Your task to perform on an android device: Turn on the flashlight Image 0: 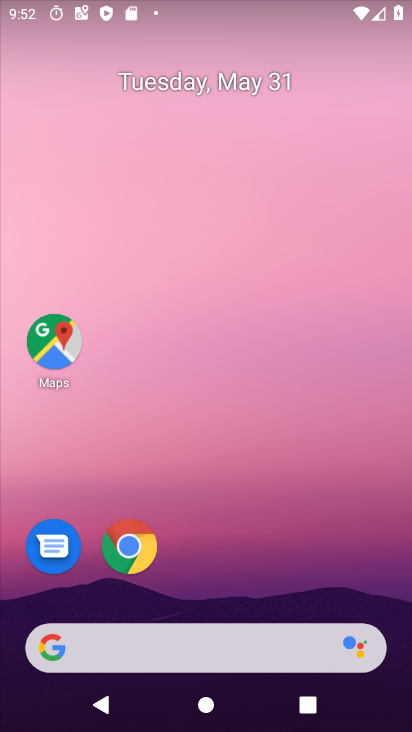
Step 0: drag from (322, 614) to (169, 68)
Your task to perform on an android device: Turn on the flashlight Image 1: 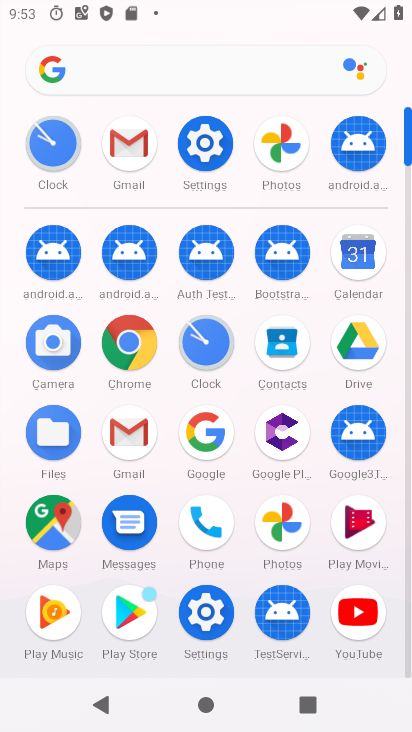
Step 1: click (204, 143)
Your task to perform on an android device: Turn on the flashlight Image 2: 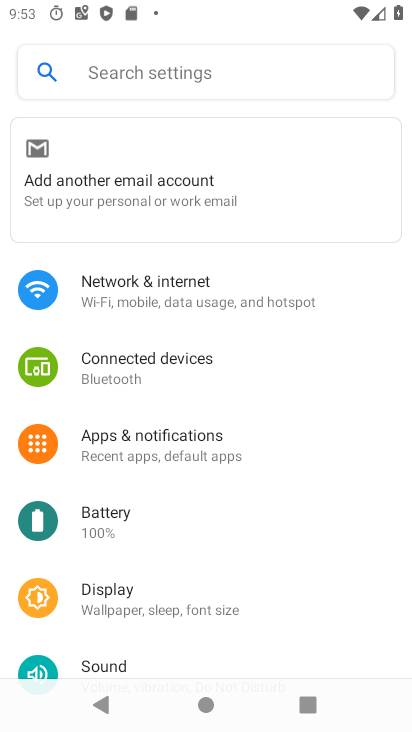
Step 2: task complete